Your task to perform on an android device: turn off data saver in the chrome app Image 0: 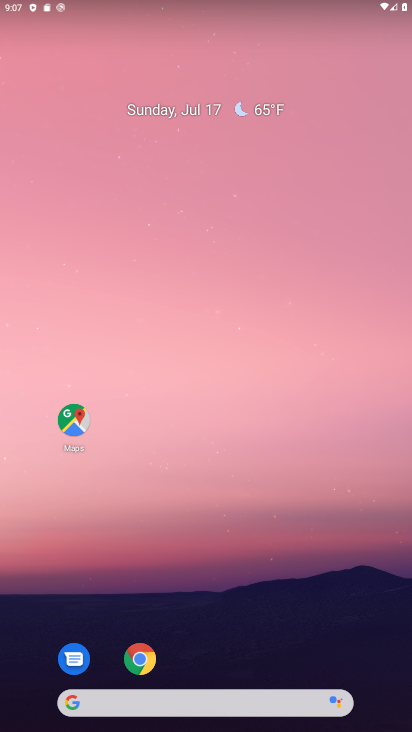
Step 0: click (138, 658)
Your task to perform on an android device: turn off data saver in the chrome app Image 1: 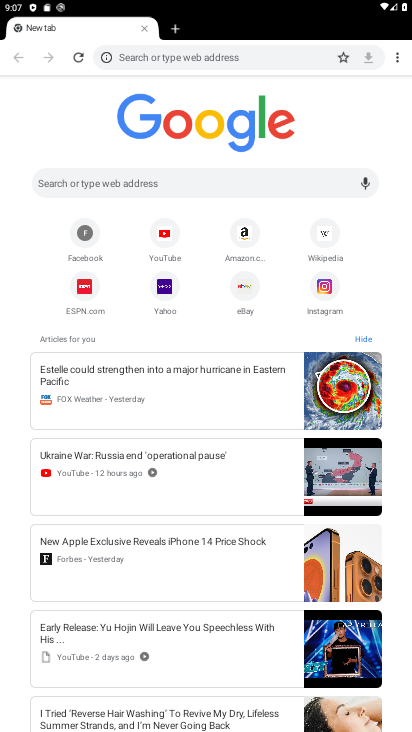
Step 1: click (403, 64)
Your task to perform on an android device: turn off data saver in the chrome app Image 2: 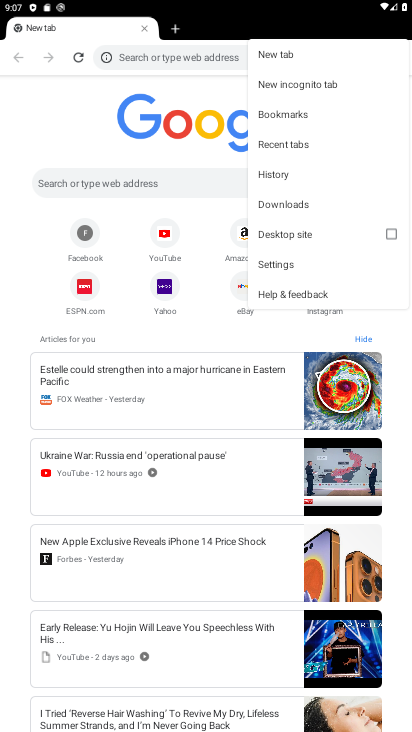
Step 2: click (332, 266)
Your task to perform on an android device: turn off data saver in the chrome app Image 3: 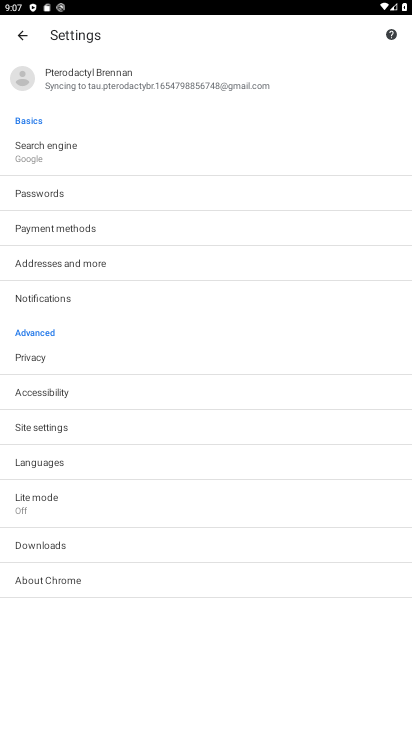
Step 3: click (114, 510)
Your task to perform on an android device: turn off data saver in the chrome app Image 4: 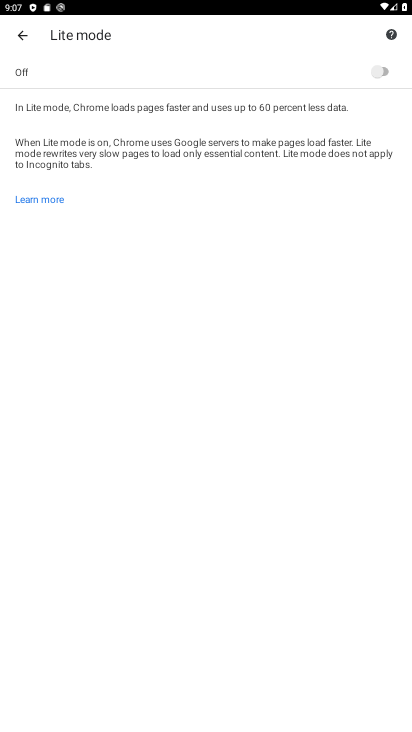
Step 4: task complete